Your task to perform on an android device: Go to wifi settings Image 0: 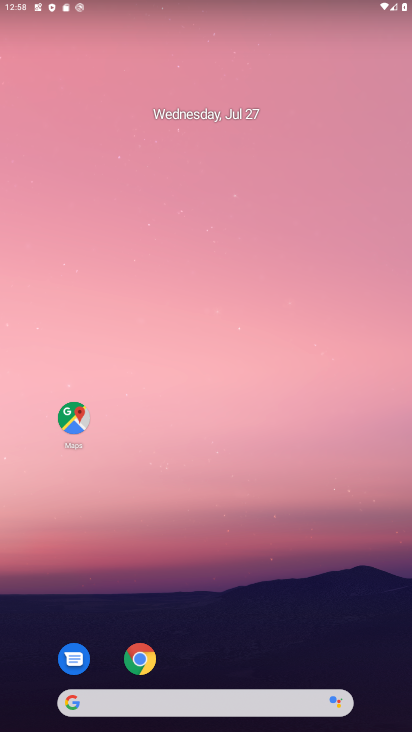
Step 0: press home button
Your task to perform on an android device: Go to wifi settings Image 1: 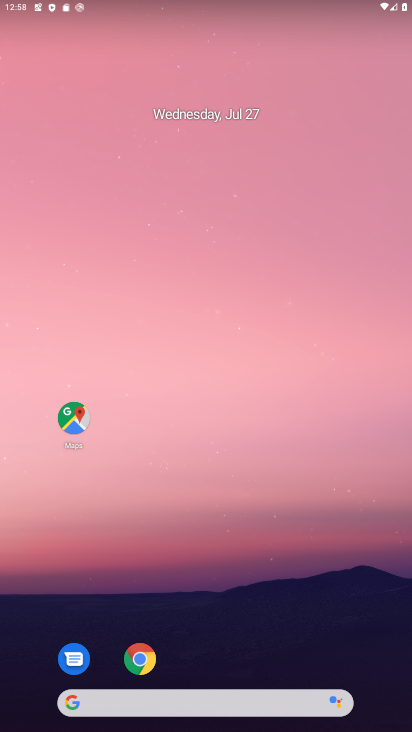
Step 1: drag from (209, 672) to (196, 69)
Your task to perform on an android device: Go to wifi settings Image 2: 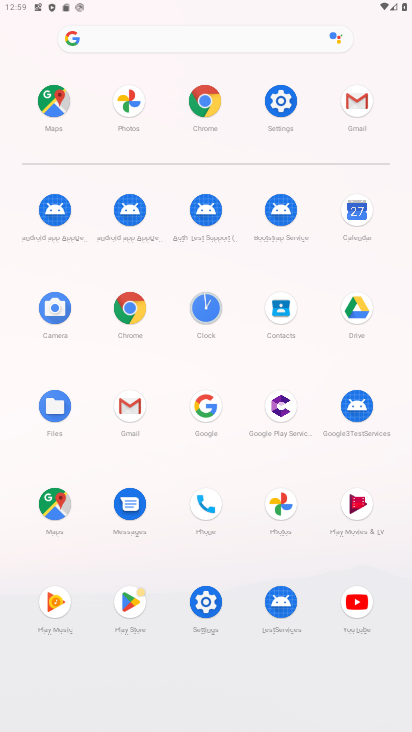
Step 2: click (278, 95)
Your task to perform on an android device: Go to wifi settings Image 3: 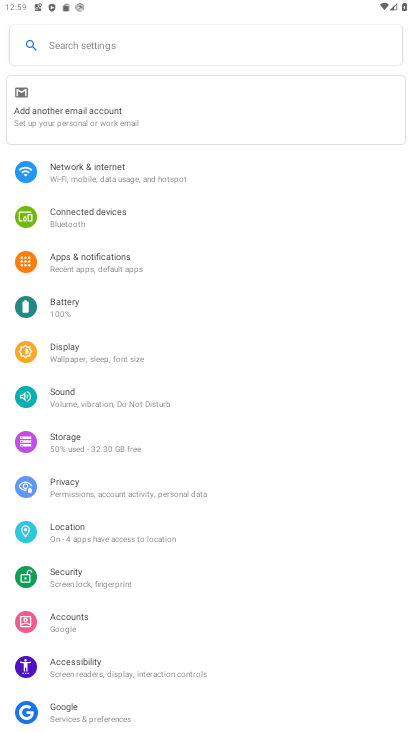
Step 3: click (127, 167)
Your task to perform on an android device: Go to wifi settings Image 4: 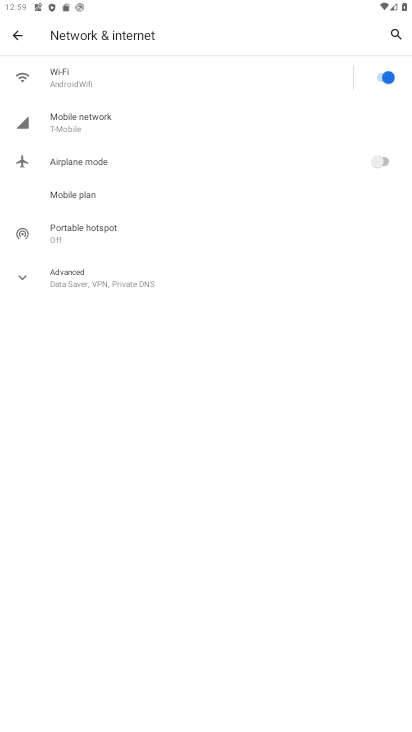
Step 4: click (22, 270)
Your task to perform on an android device: Go to wifi settings Image 5: 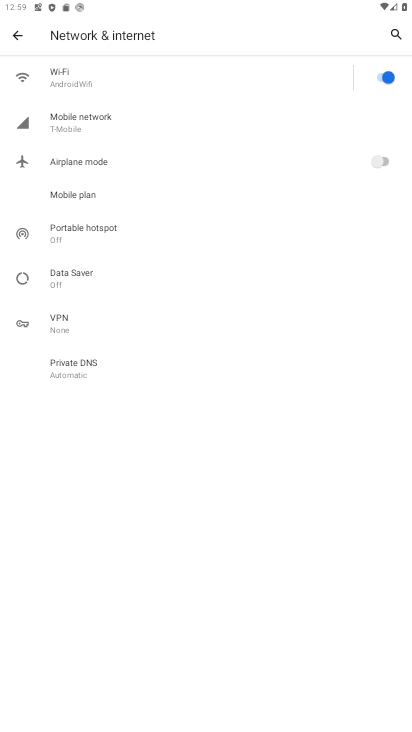
Step 5: click (135, 73)
Your task to perform on an android device: Go to wifi settings Image 6: 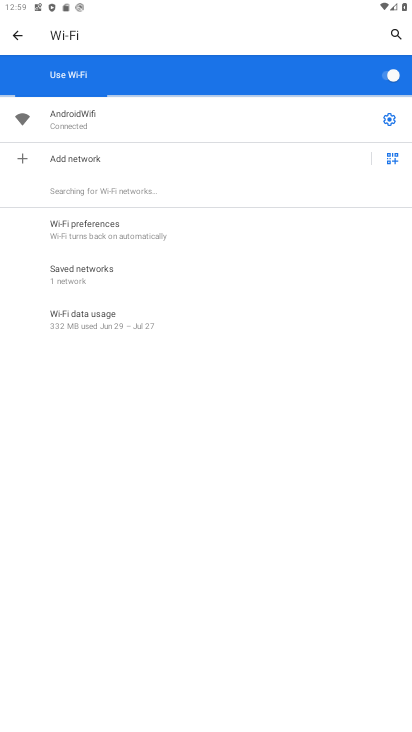
Step 6: task complete